Your task to perform on an android device: Go to Maps Image 0: 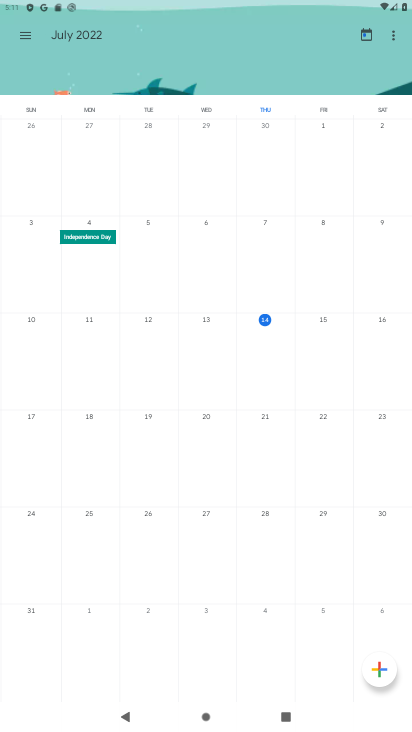
Step 0: press home button
Your task to perform on an android device: Go to Maps Image 1: 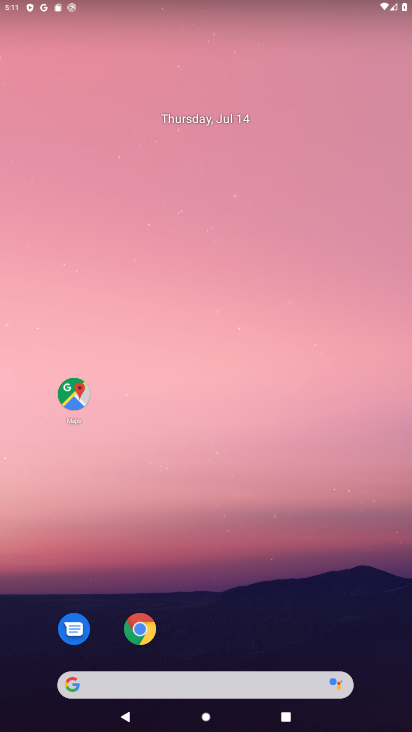
Step 1: drag from (299, 689) to (389, 32)
Your task to perform on an android device: Go to Maps Image 2: 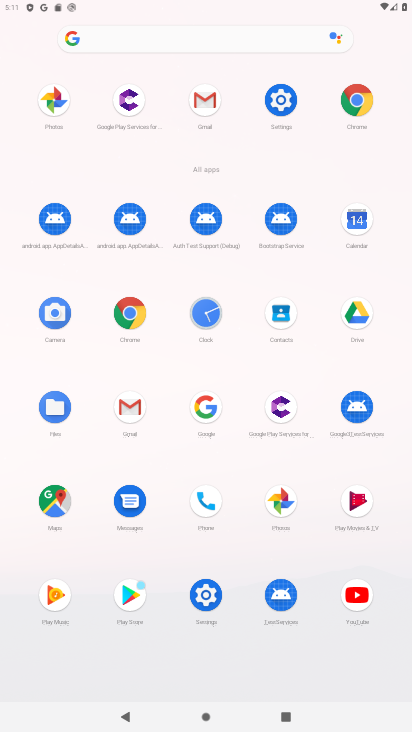
Step 2: click (50, 500)
Your task to perform on an android device: Go to Maps Image 3: 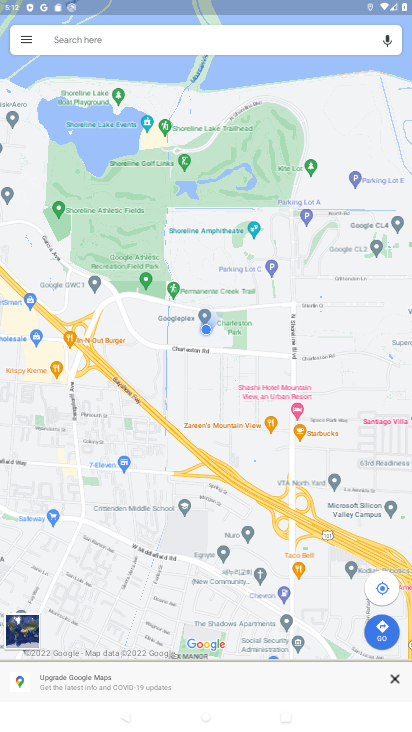
Step 3: task complete